Your task to perform on an android device: turn pop-ups off in chrome Image 0: 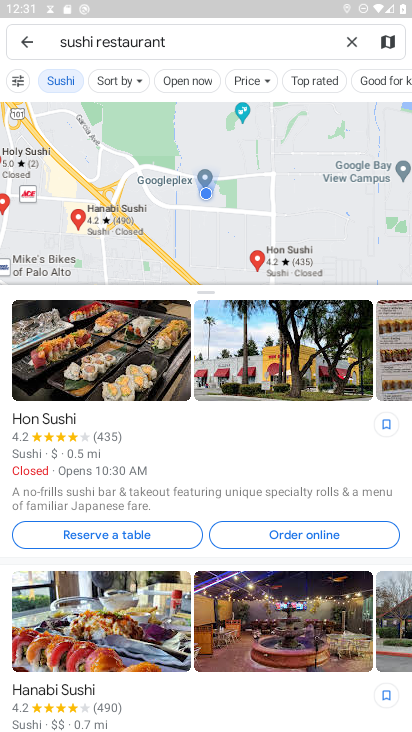
Step 0: press back button
Your task to perform on an android device: turn pop-ups off in chrome Image 1: 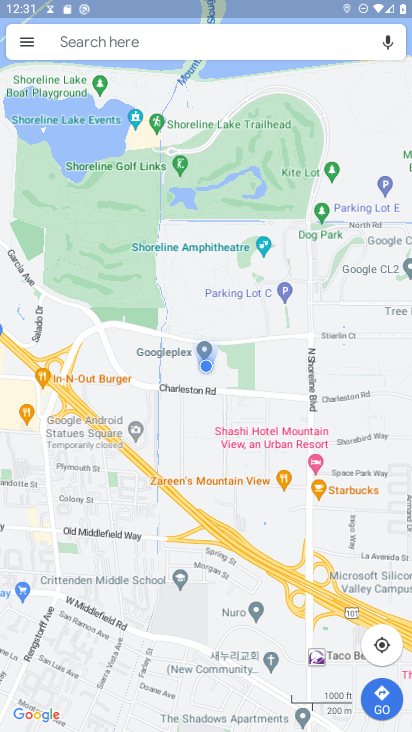
Step 1: press back button
Your task to perform on an android device: turn pop-ups off in chrome Image 2: 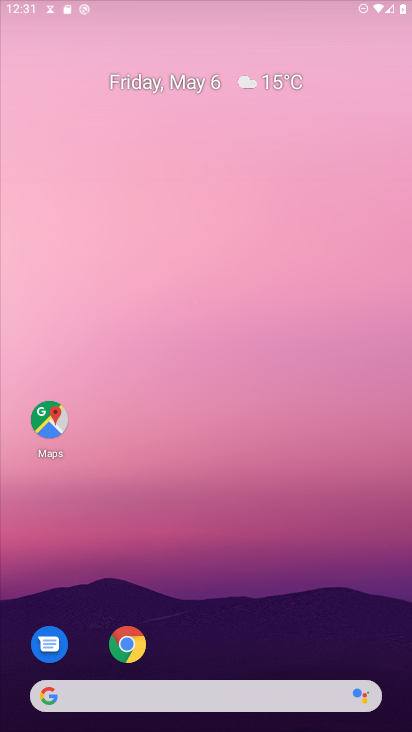
Step 2: press home button
Your task to perform on an android device: turn pop-ups off in chrome Image 3: 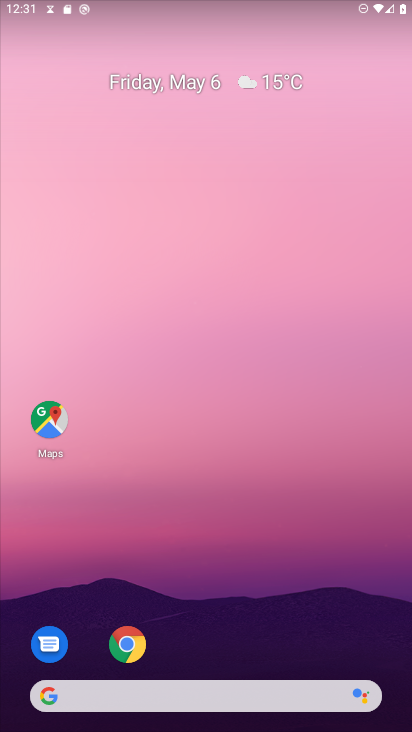
Step 3: drag from (275, 558) to (318, 22)
Your task to perform on an android device: turn pop-ups off in chrome Image 4: 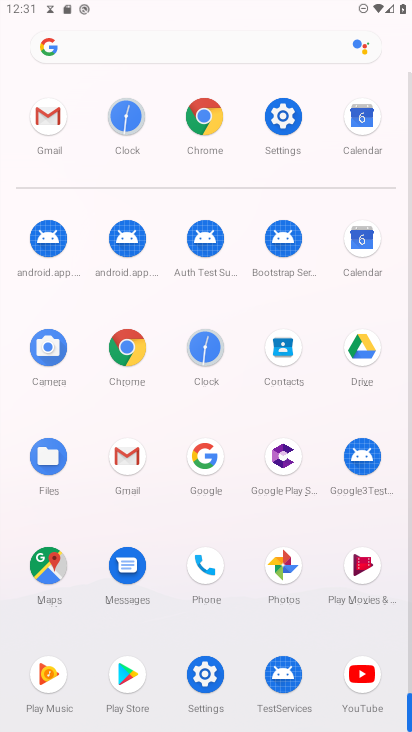
Step 4: click (125, 345)
Your task to perform on an android device: turn pop-ups off in chrome Image 5: 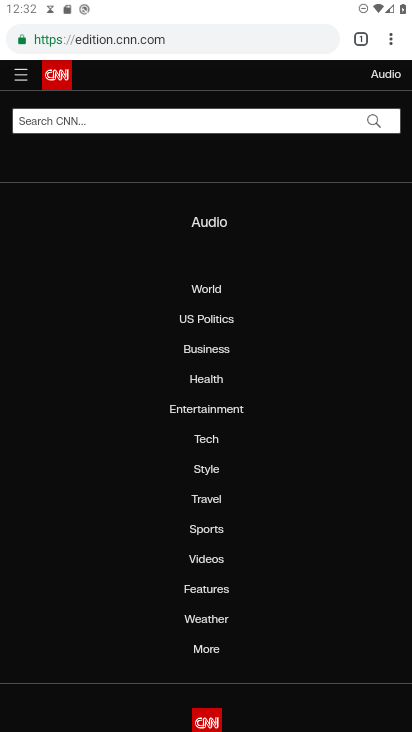
Step 5: drag from (393, 40) to (250, 475)
Your task to perform on an android device: turn pop-ups off in chrome Image 6: 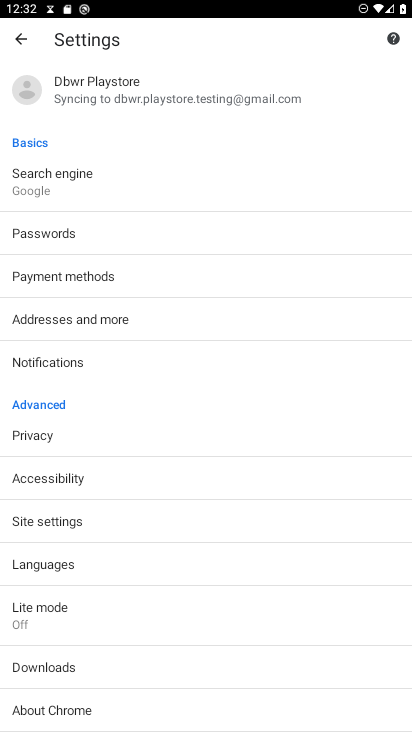
Step 6: click (79, 521)
Your task to perform on an android device: turn pop-ups off in chrome Image 7: 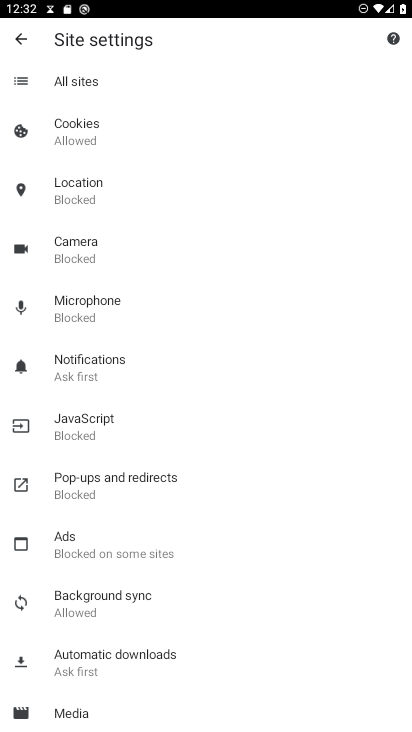
Step 7: click (110, 489)
Your task to perform on an android device: turn pop-ups off in chrome Image 8: 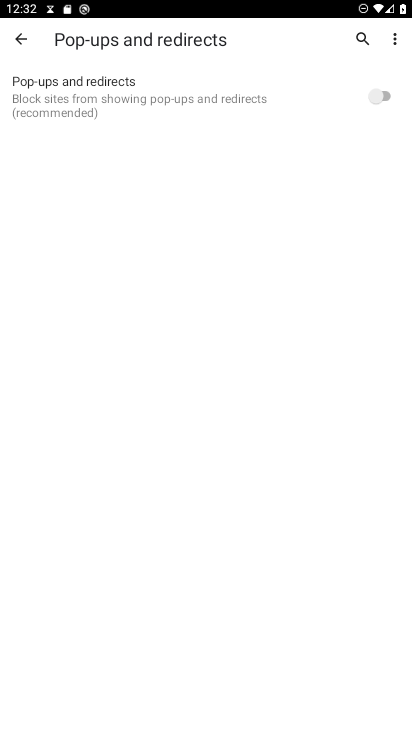
Step 8: task complete